Your task to perform on an android device: search for starred emails in the gmail app Image 0: 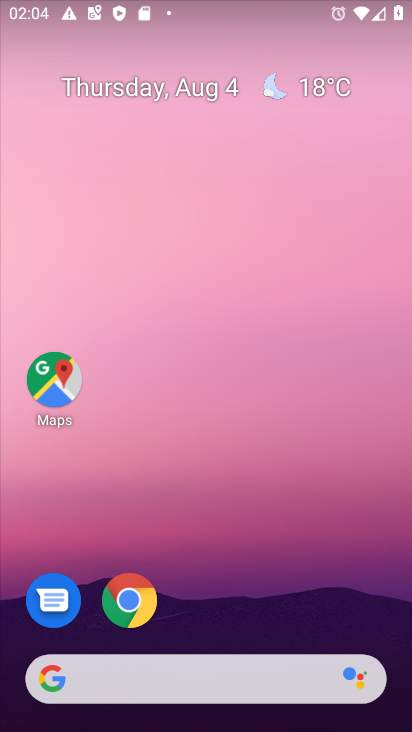
Step 0: press home button
Your task to perform on an android device: search for starred emails in the gmail app Image 1: 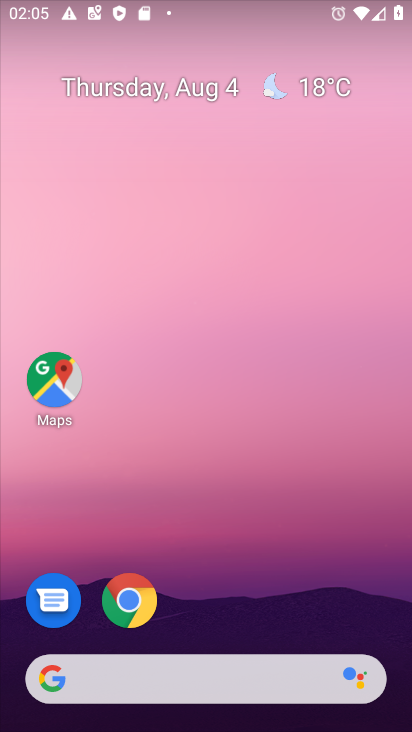
Step 1: drag from (148, 627) to (253, 180)
Your task to perform on an android device: search for starred emails in the gmail app Image 2: 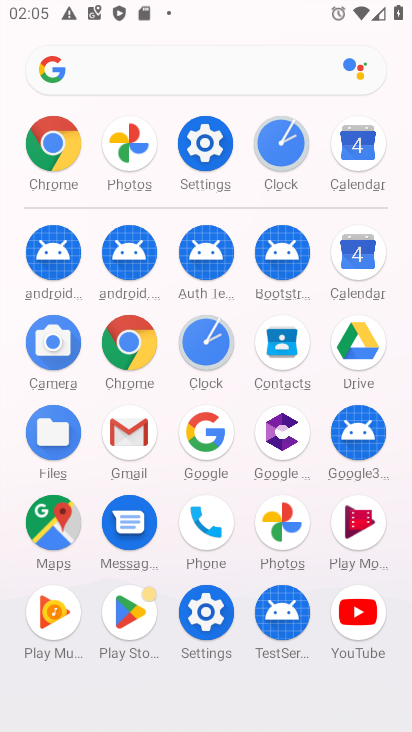
Step 2: click (128, 434)
Your task to perform on an android device: search for starred emails in the gmail app Image 3: 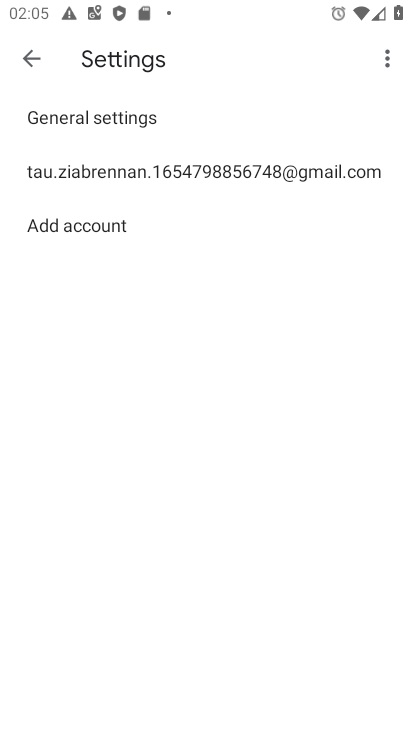
Step 3: click (30, 59)
Your task to perform on an android device: search for starred emails in the gmail app Image 4: 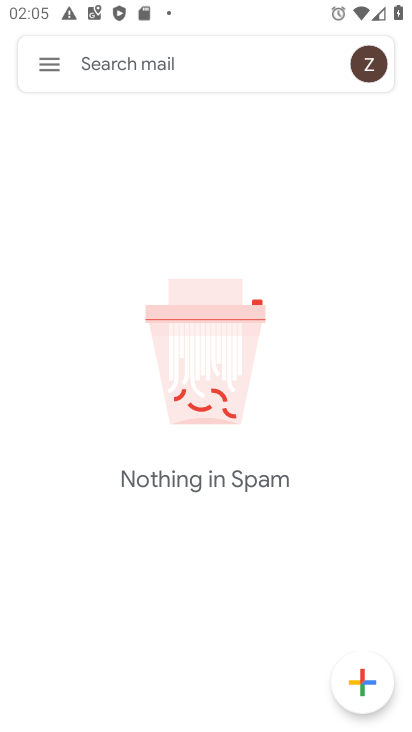
Step 4: click (51, 68)
Your task to perform on an android device: search for starred emails in the gmail app Image 5: 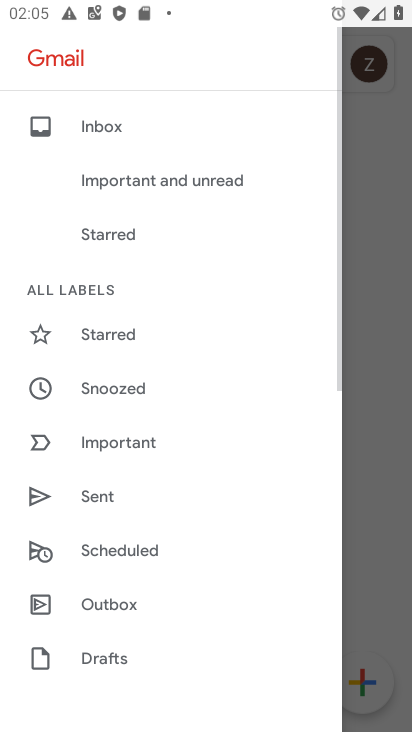
Step 5: click (115, 334)
Your task to perform on an android device: search for starred emails in the gmail app Image 6: 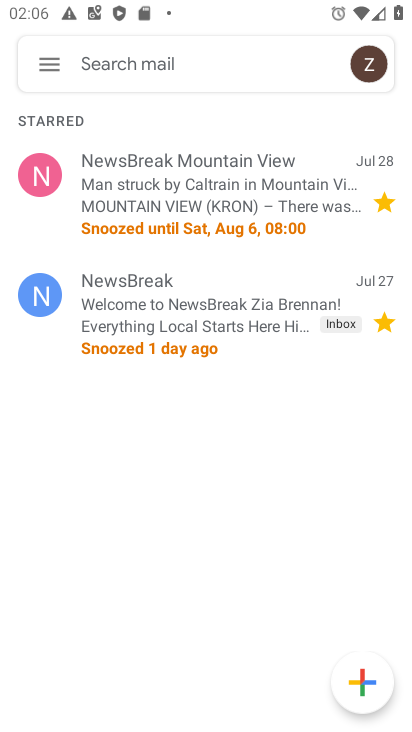
Step 6: task complete